Your task to perform on an android device: set the stopwatch Image 0: 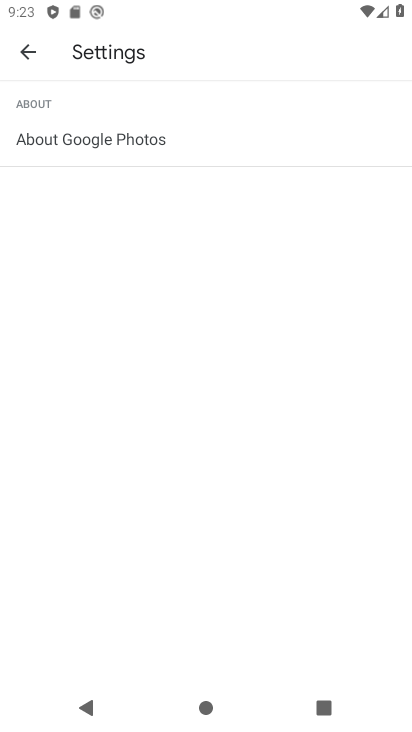
Step 0: drag from (274, 589) to (252, 253)
Your task to perform on an android device: set the stopwatch Image 1: 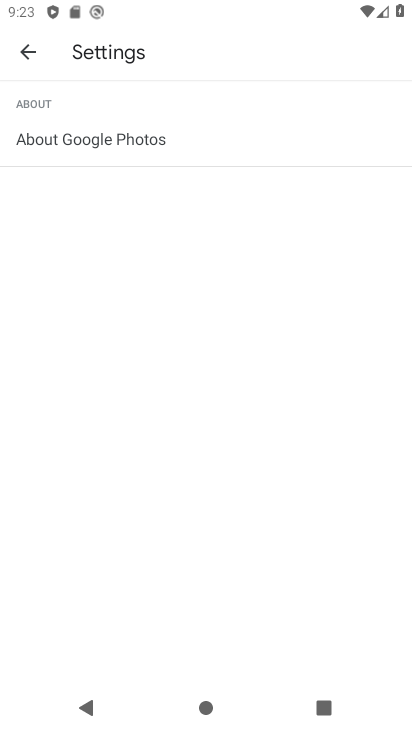
Step 1: press home button
Your task to perform on an android device: set the stopwatch Image 2: 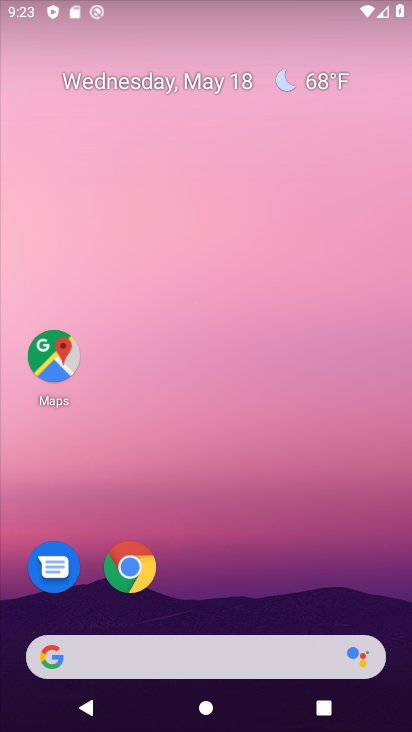
Step 2: drag from (232, 567) to (224, 173)
Your task to perform on an android device: set the stopwatch Image 3: 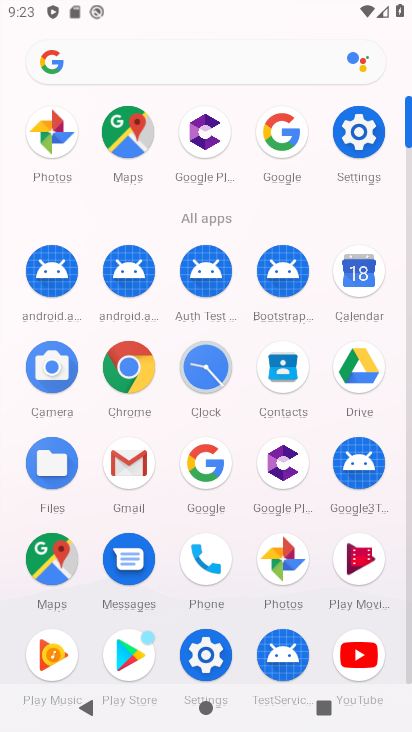
Step 3: click (212, 374)
Your task to perform on an android device: set the stopwatch Image 4: 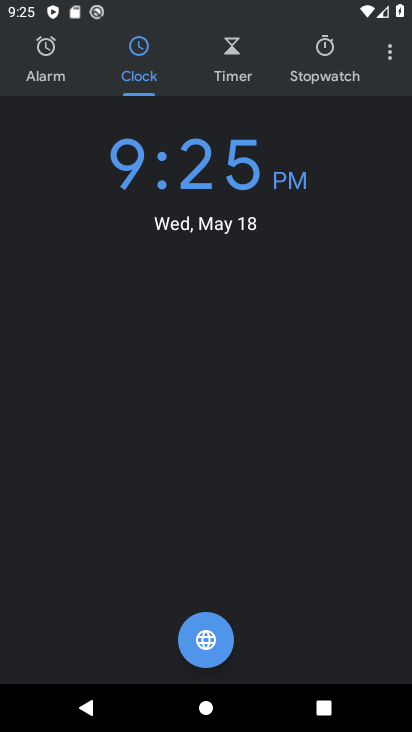
Step 4: click (328, 71)
Your task to perform on an android device: set the stopwatch Image 5: 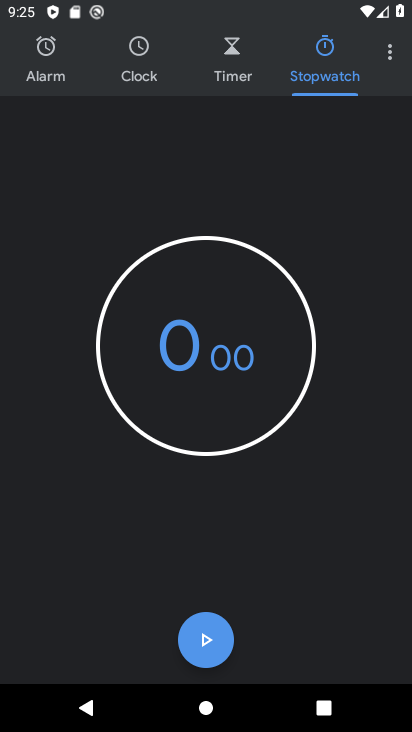
Step 5: click (213, 630)
Your task to perform on an android device: set the stopwatch Image 6: 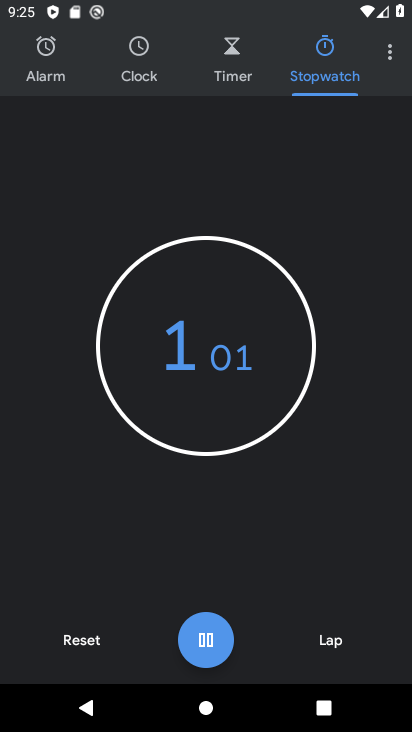
Step 6: task complete